Your task to perform on an android device: change the clock display to analog Image 0: 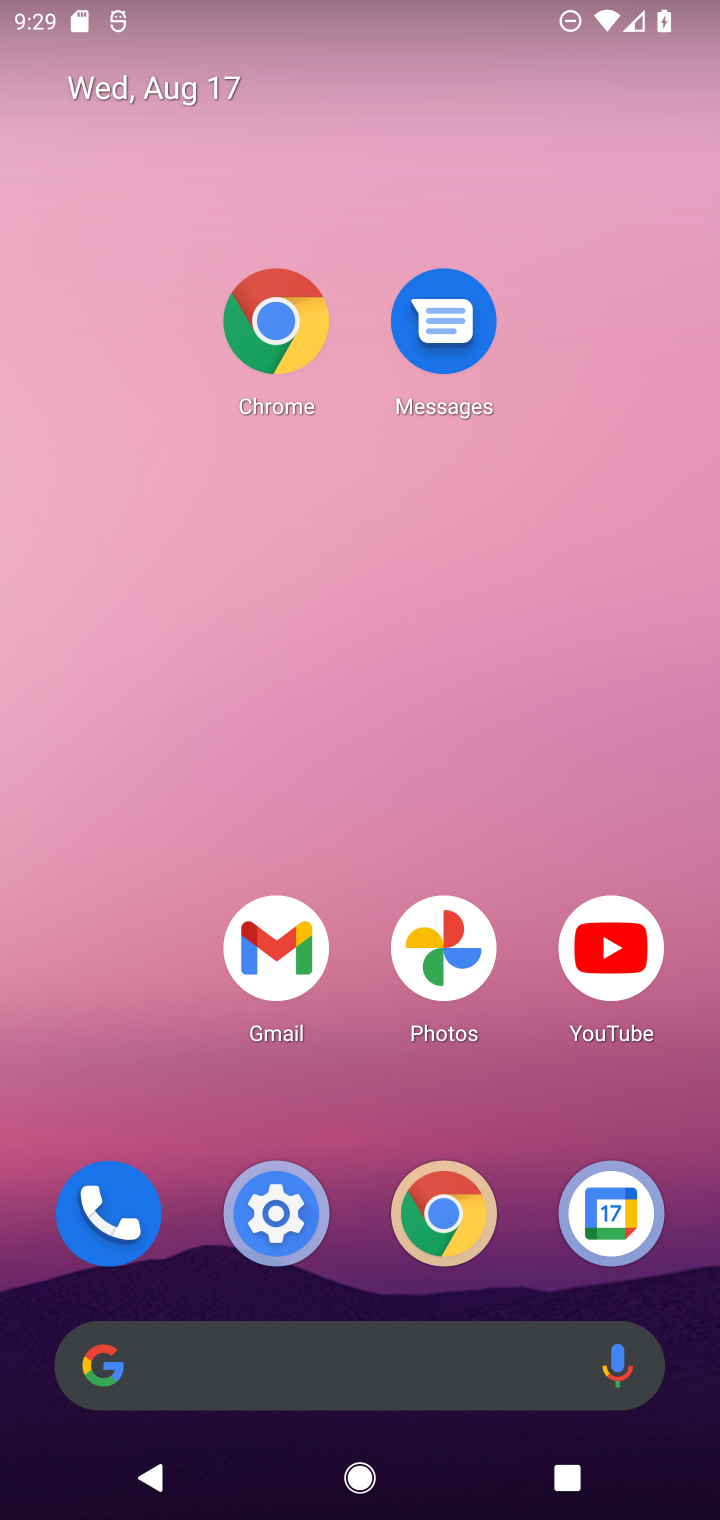
Step 0: drag from (361, 1278) to (329, 367)
Your task to perform on an android device: change the clock display to analog Image 1: 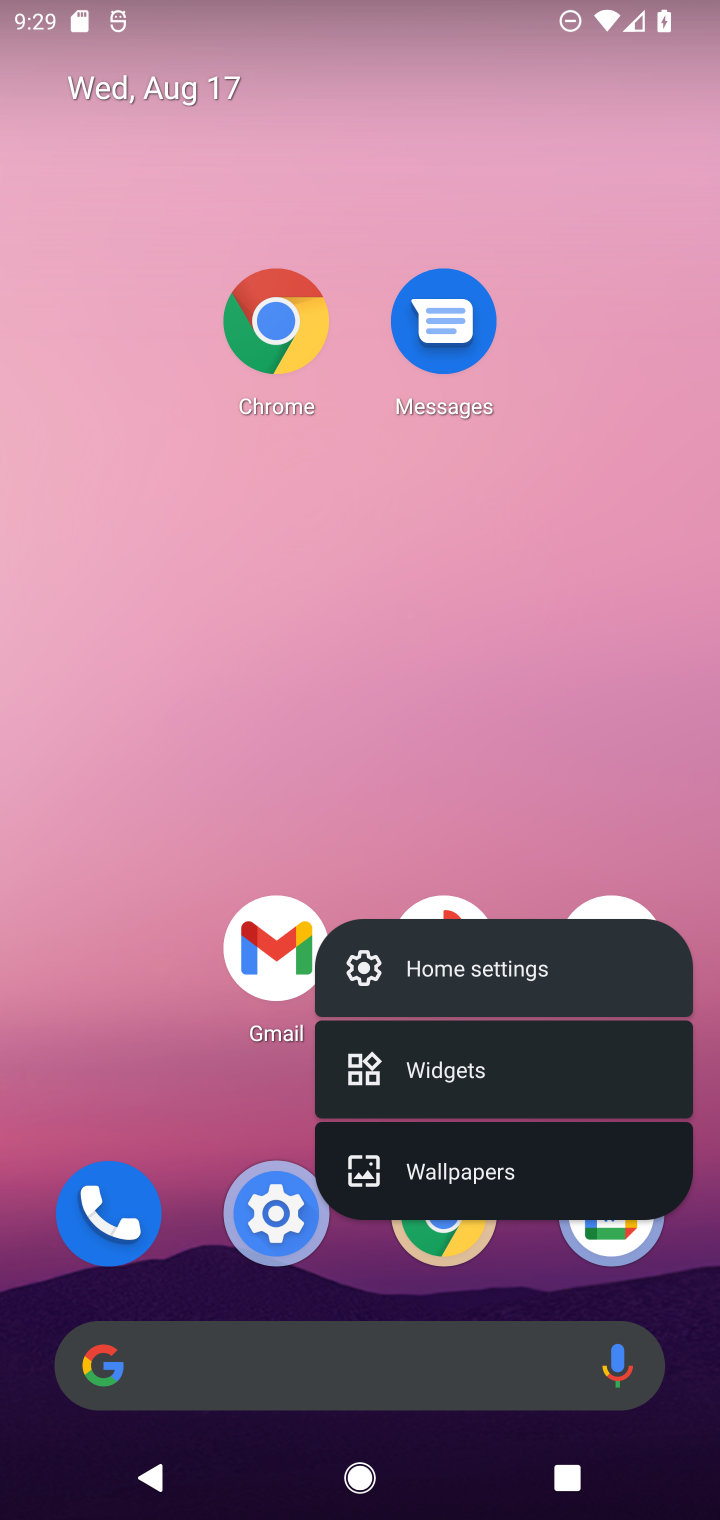
Step 1: click (342, 686)
Your task to perform on an android device: change the clock display to analog Image 2: 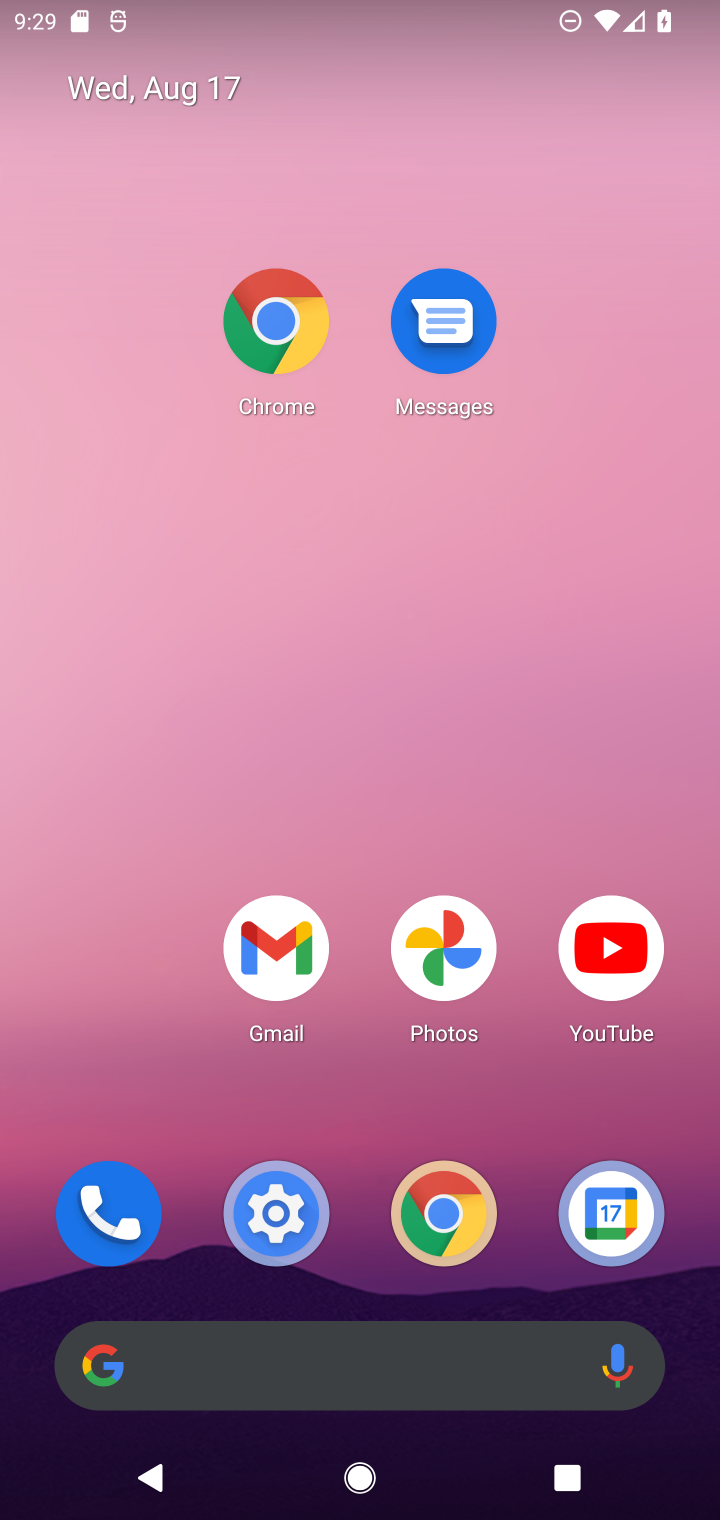
Step 2: click (342, 1277)
Your task to perform on an android device: change the clock display to analog Image 3: 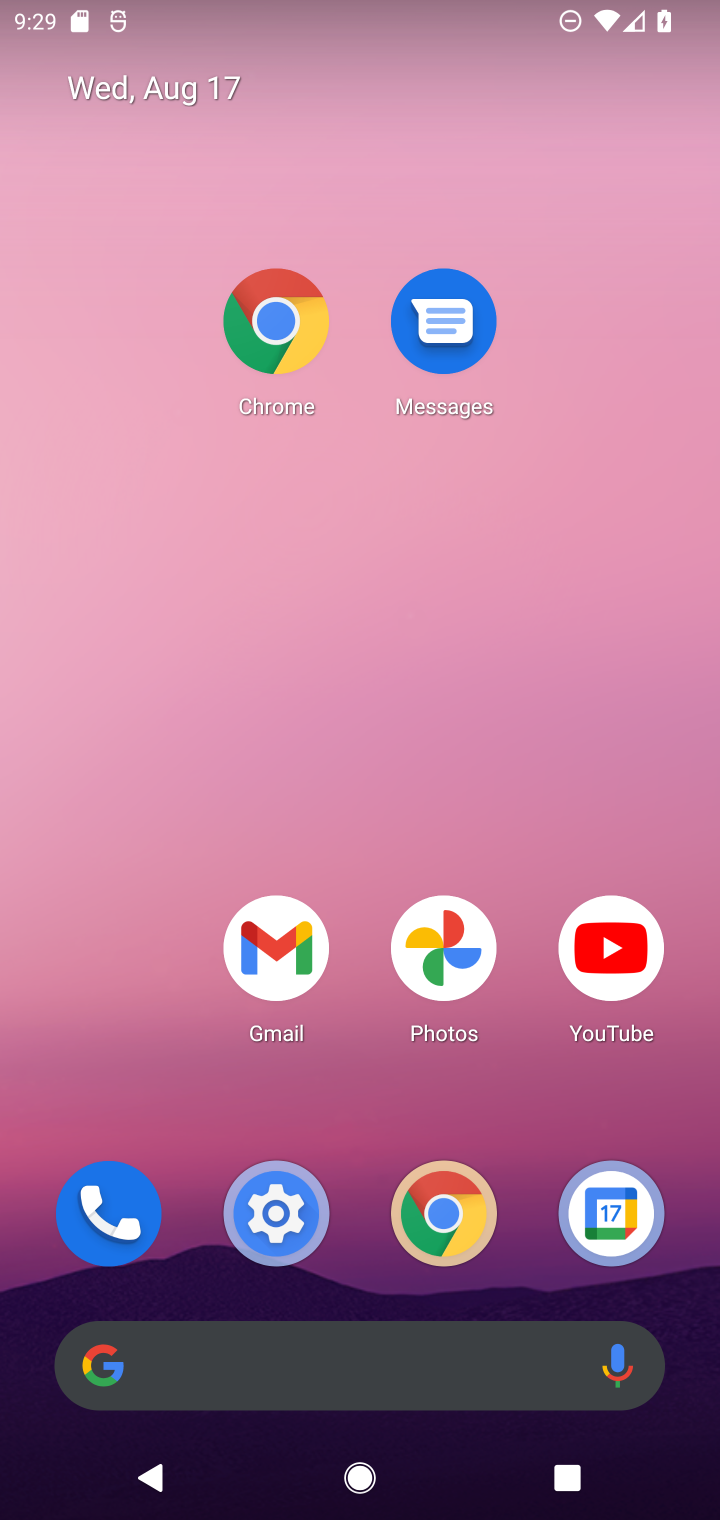
Step 3: drag from (363, 1287) to (368, 28)
Your task to perform on an android device: change the clock display to analog Image 4: 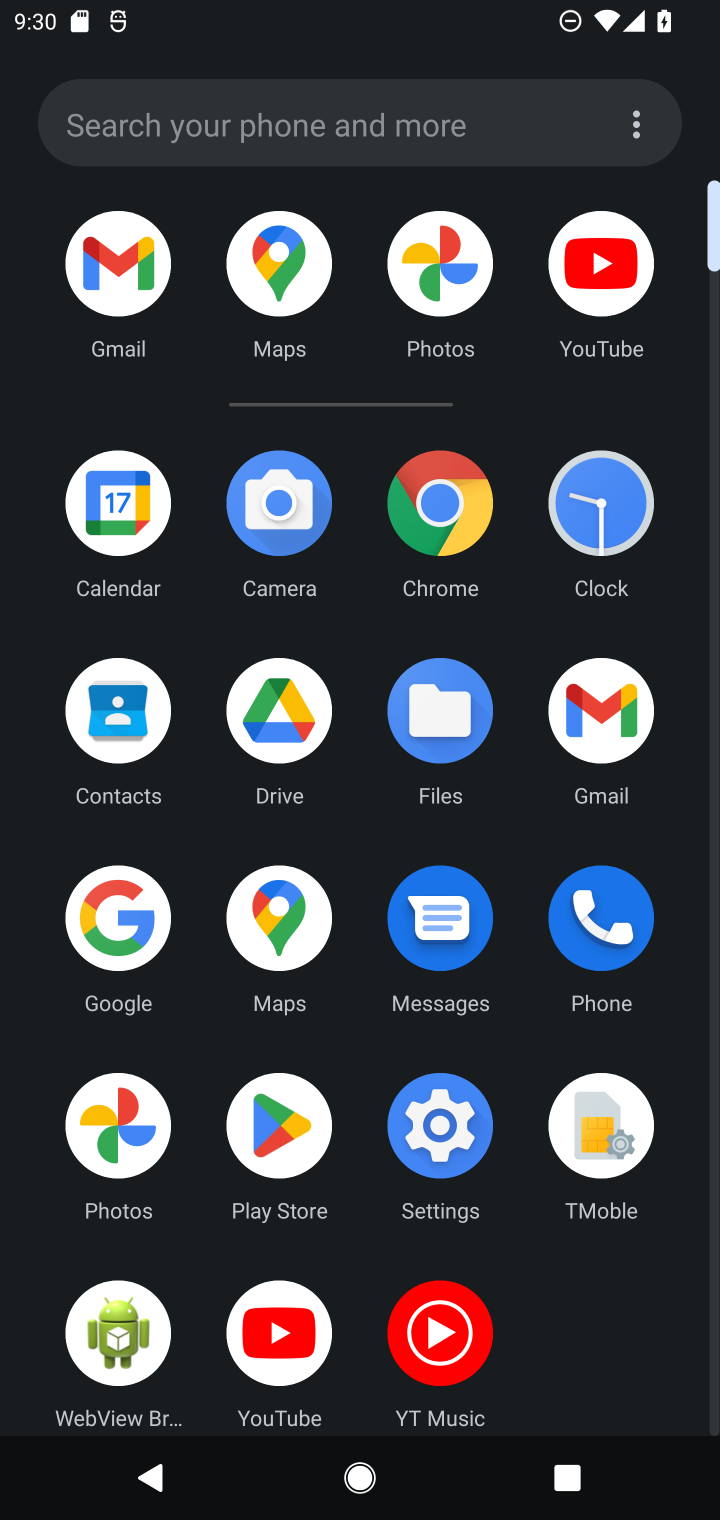
Step 4: click (644, 552)
Your task to perform on an android device: change the clock display to analog Image 5: 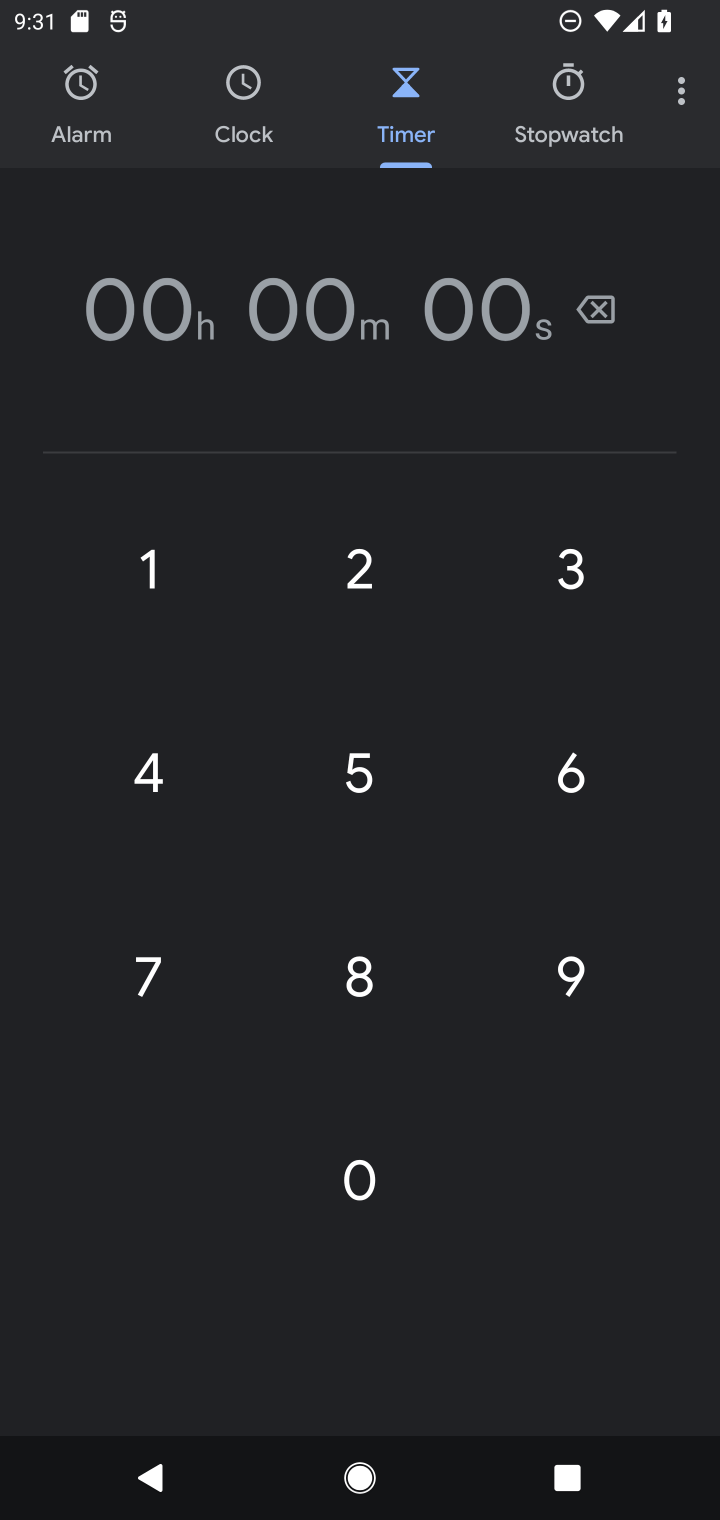
Step 5: task complete